Your task to perform on an android device: check the backup settings in the google photos Image 0: 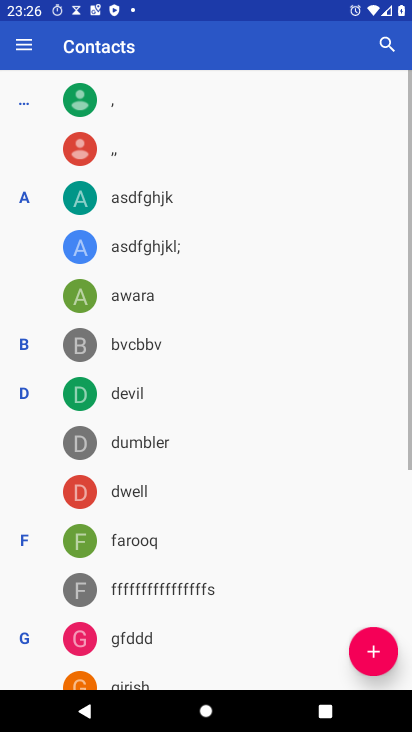
Step 0: press home button
Your task to perform on an android device: check the backup settings in the google photos Image 1: 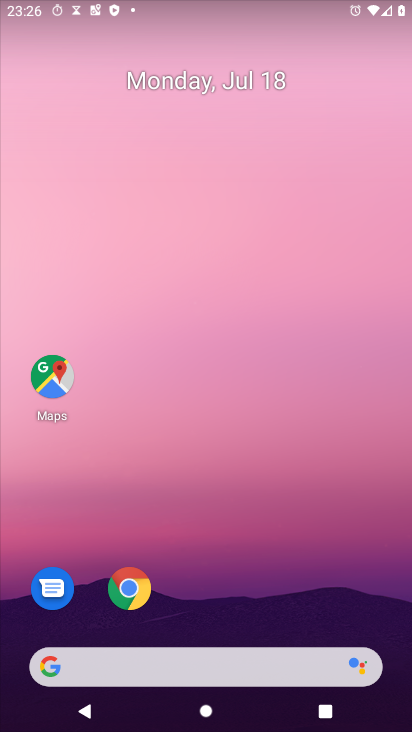
Step 1: drag from (166, 664) to (297, 296)
Your task to perform on an android device: check the backup settings in the google photos Image 2: 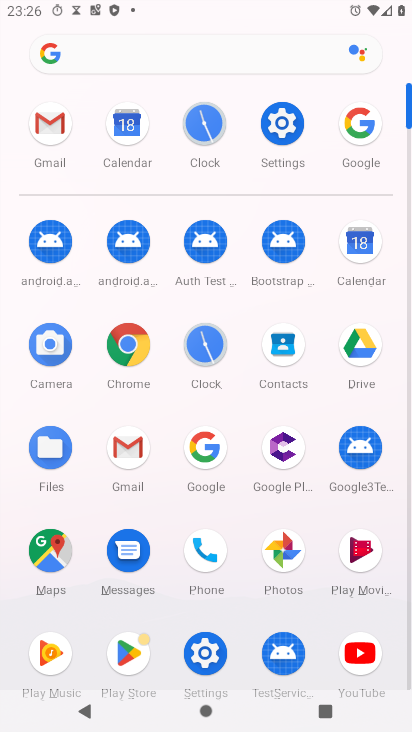
Step 2: click (288, 562)
Your task to perform on an android device: check the backup settings in the google photos Image 3: 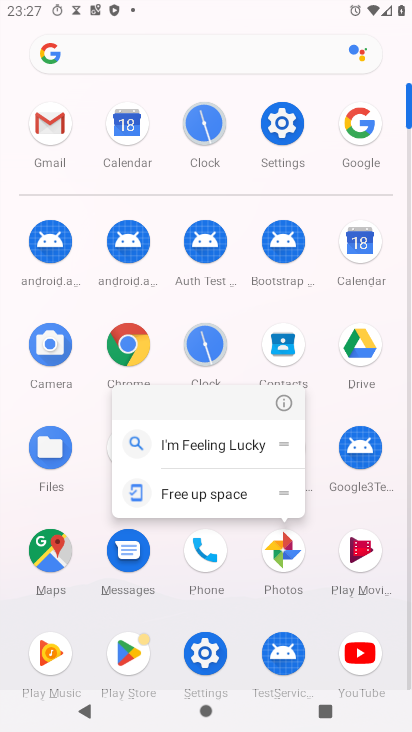
Step 3: click (279, 555)
Your task to perform on an android device: check the backup settings in the google photos Image 4: 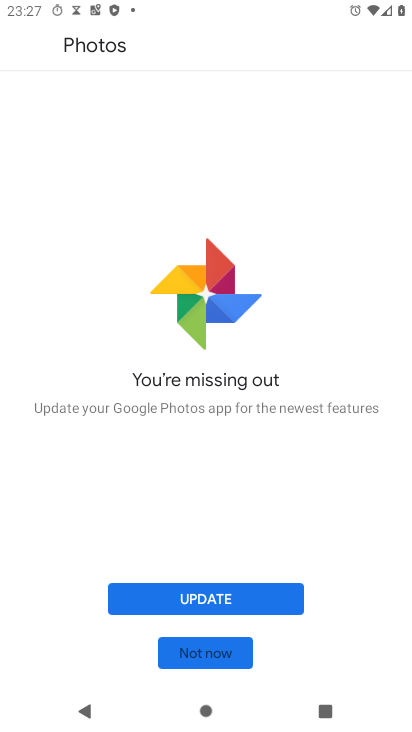
Step 4: click (211, 652)
Your task to perform on an android device: check the backup settings in the google photos Image 5: 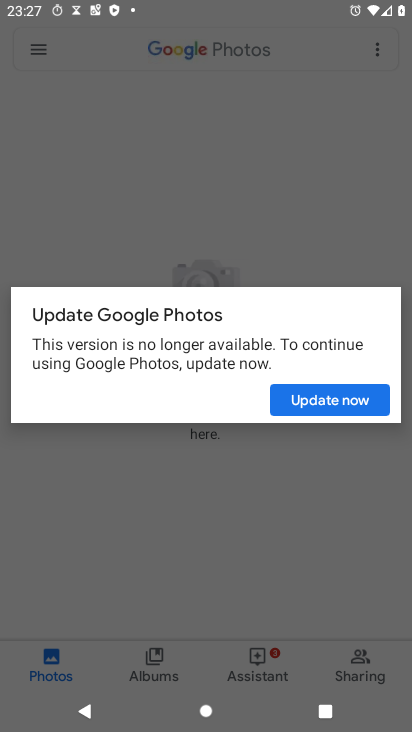
Step 5: click (309, 399)
Your task to perform on an android device: check the backup settings in the google photos Image 6: 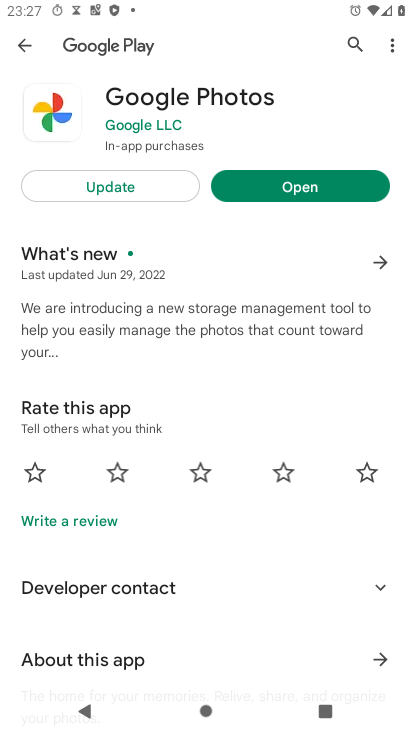
Step 6: click (297, 194)
Your task to perform on an android device: check the backup settings in the google photos Image 7: 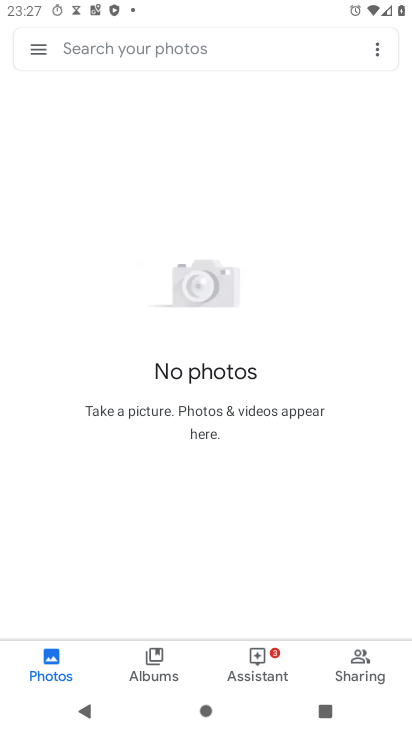
Step 7: click (36, 47)
Your task to perform on an android device: check the backup settings in the google photos Image 8: 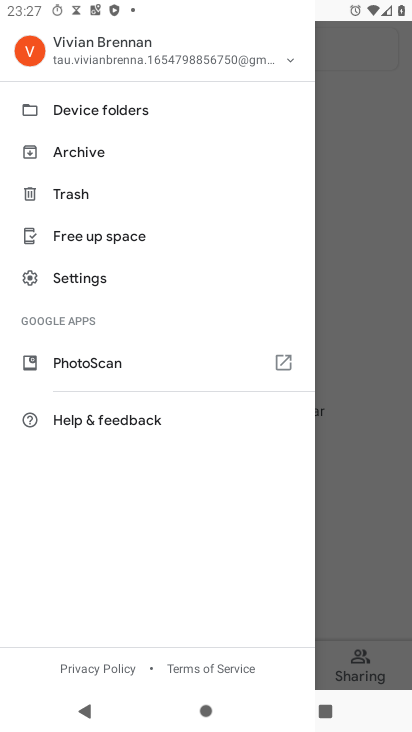
Step 8: click (84, 280)
Your task to perform on an android device: check the backup settings in the google photos Image 9: 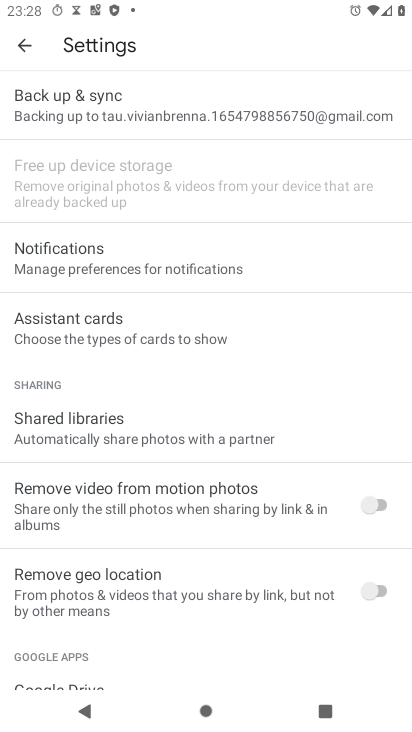
Step 9: click (212, 106)
Your task to perform on an android device: check the backup settings in the google photos Image 10: 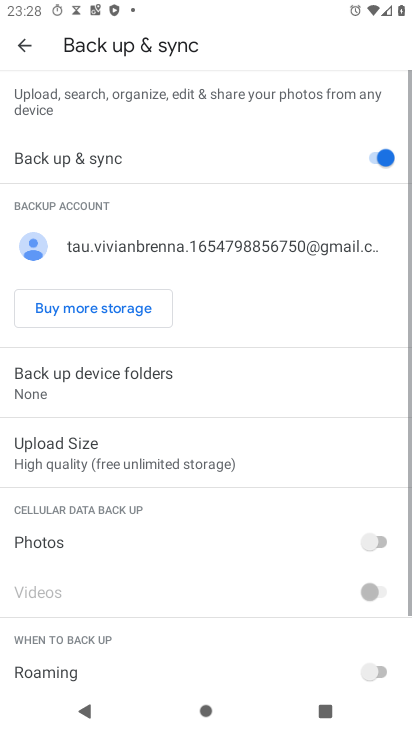
Step 10: task complete